Your task to perform on an android device: turn on wifi Image 0: 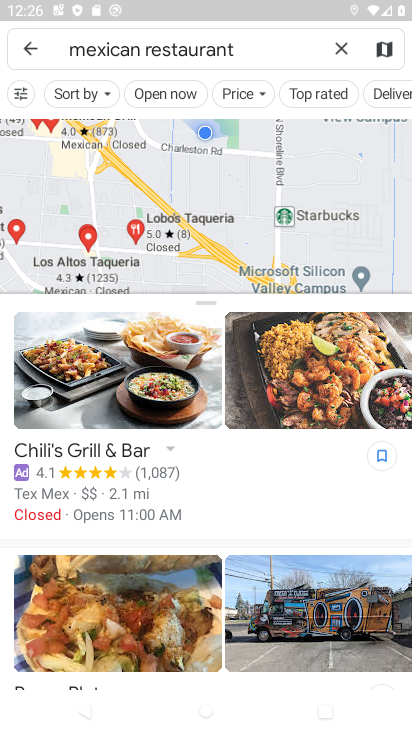
Step 0: press home button
Your task to perform on an android device: turn on wifi Image 1: 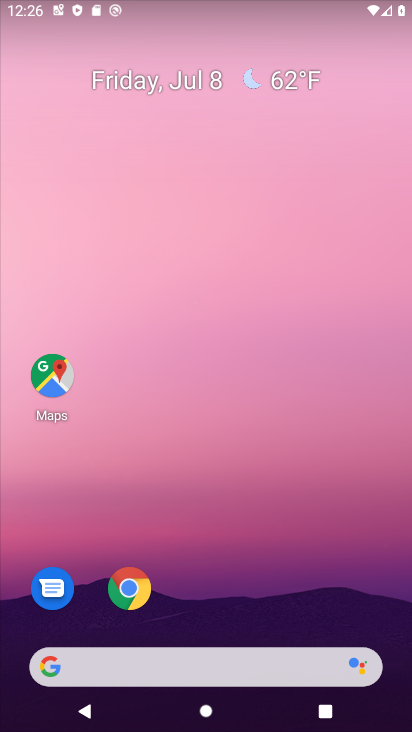
Step 1: drag from (196, 625) to (149, 35)
Your task to perform on an android device: turn on wifi Image 2: 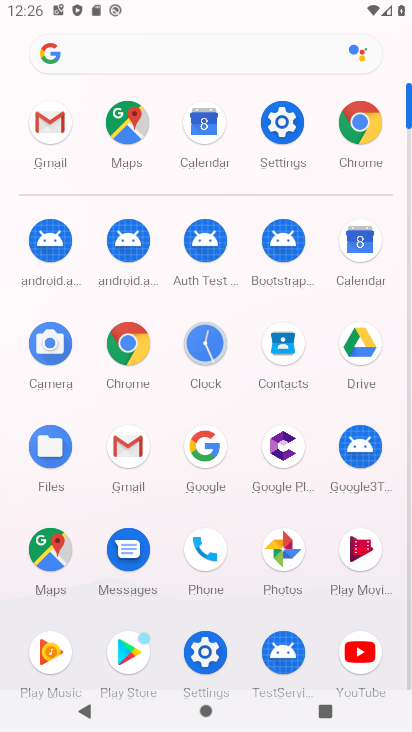
Step 2: click (200, 638)
Your task to perform on an android device: turn on wifi Image 3: 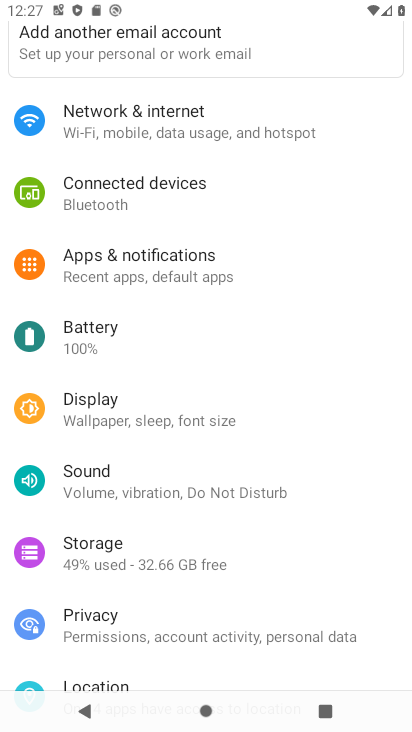
Step 3: click (156, 106)
Your task to perform on an android device: turn on wifi Image 4: 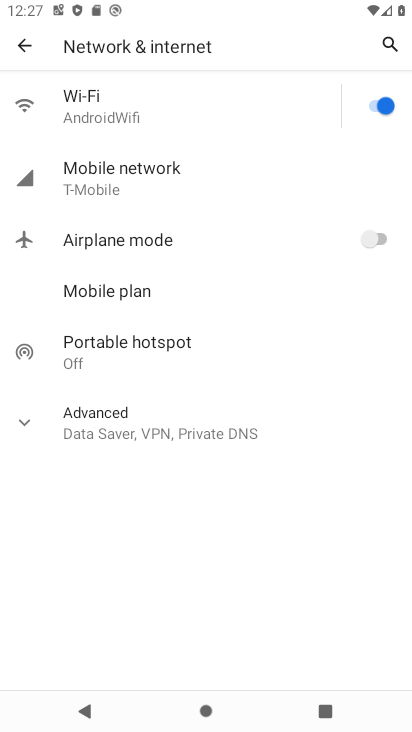
Step 4: task complete